Your task to perform on an android device: Open the stopwatch Image 0: 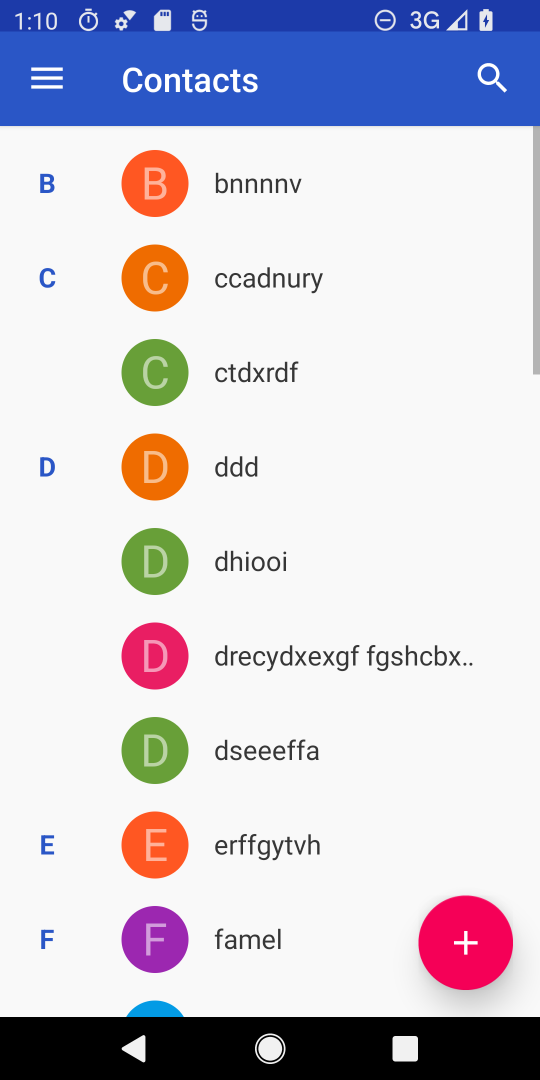
Step 0: press home button
Your task to perform on an android device: Open the stopwatch Image 1: 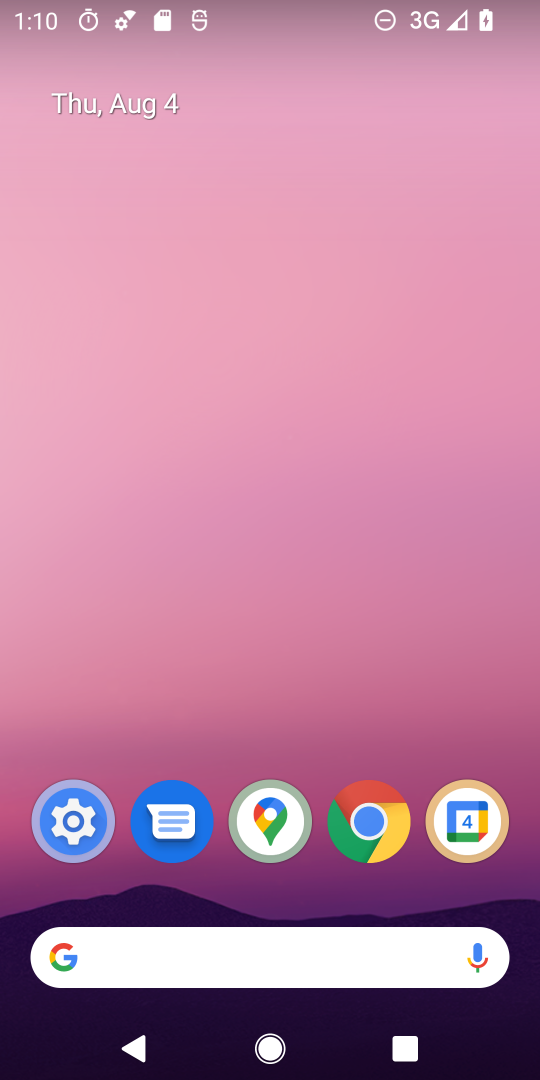
Step 1: drag from (508, 882) to (200, 63)
Your task to perform on an android device: Open the stopwatch Image 2: 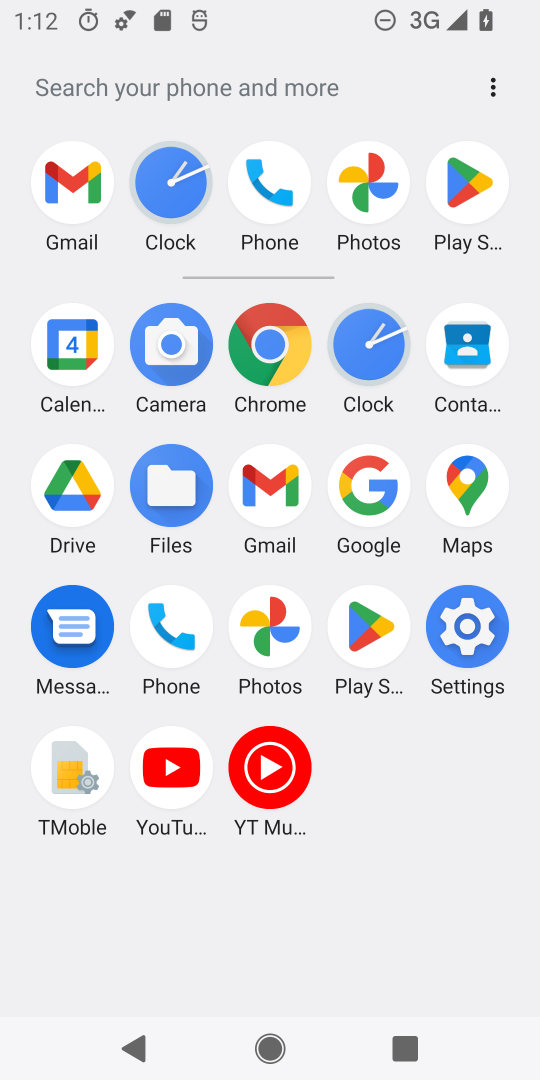
Step 2: click (379, 368)
Your task to perform on an android device: Open the stopwatch Image 3: 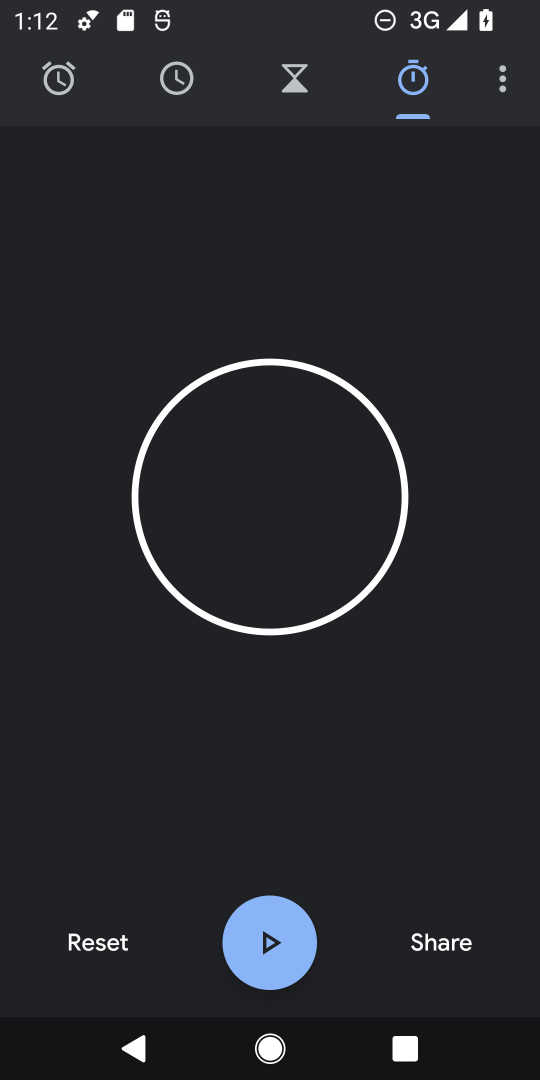
Step 3: task complete